Your task to perform on an android device: Go to notification settings Image 0: 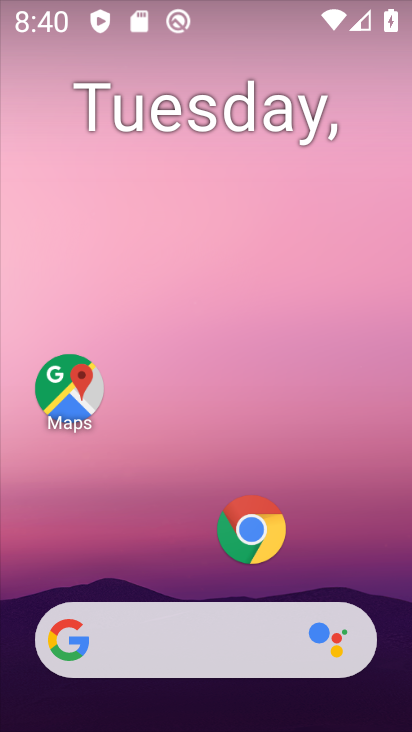
Step 0: drag from (197, 567) to (188, 60)
Your task to perform on an android device: Go to notification settings Image 1: 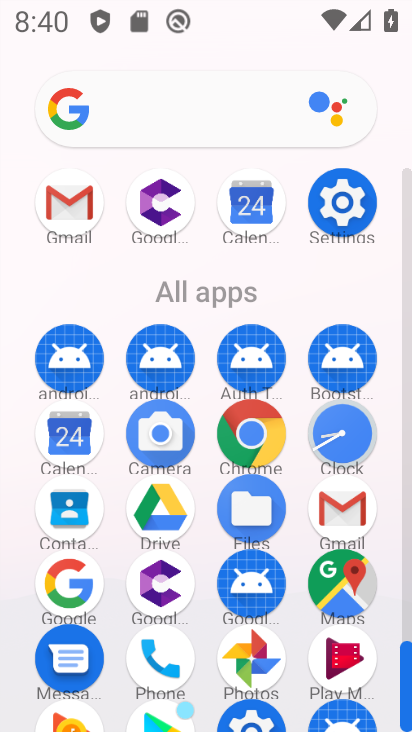
Step 1: click (335, 189)
Your task to perform on an android device: Go to notification settings Image 2: 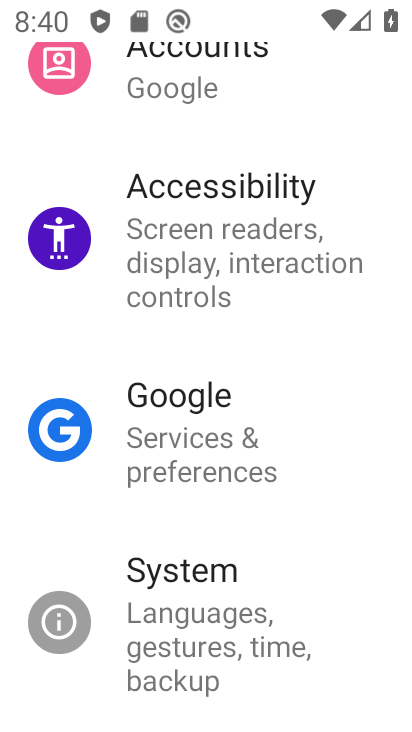
Step 2: drag from (200, 83) to (175, 729)
Your task to perform on an android device: Go to notification settings Image 3: 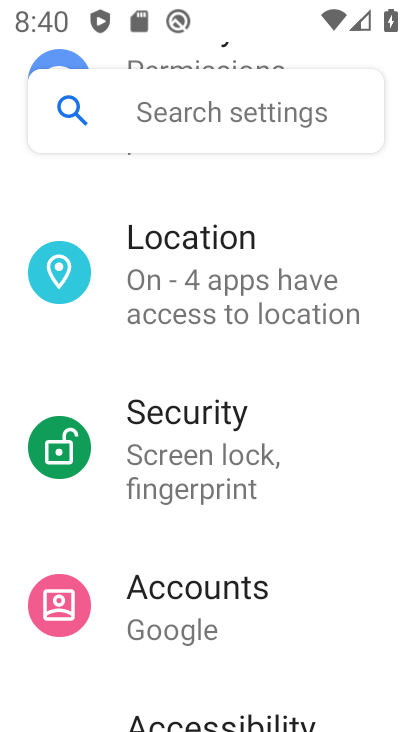
Step 3: drag from (181, 195) to (174, 722)
Your task to perform on an android device: Go to notification settings Image 4: 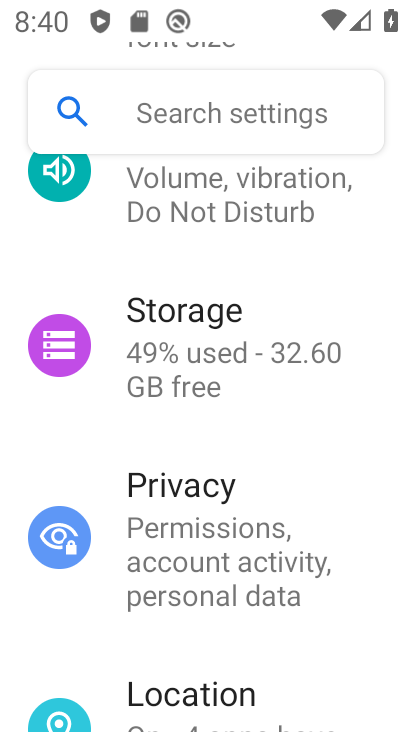
Step 4: drag from (190, 181) to (165, 731)
Your task to perform on an android device: Go to notification settings Image 5: 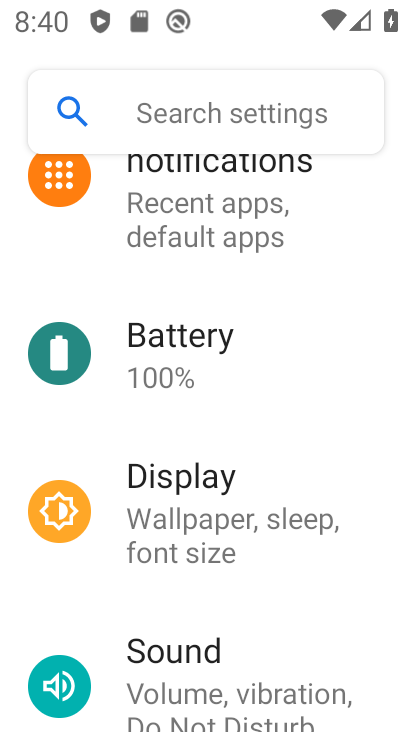
Step 5: click (176, 210)
Your task to perform on an android device: Go to notification settings Image 6: 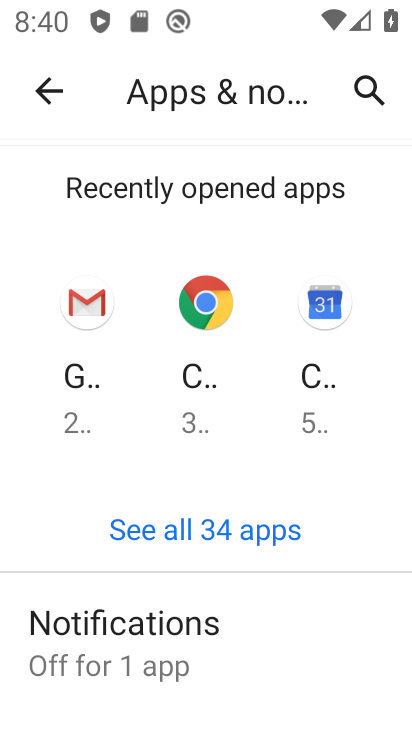
Step 6: click (202, 651)
Your task to perform on an android device: Go to notification settings Image 7: 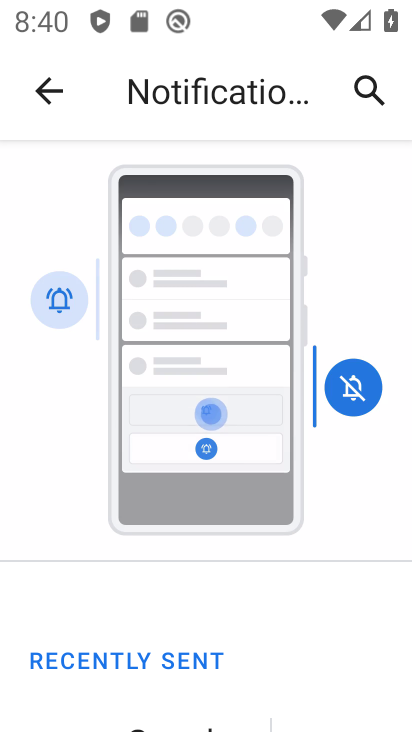
Step 7: drag from (263, 509) to (292, 229)
Your task to perform on an android device: Go to notification settings Image 8: 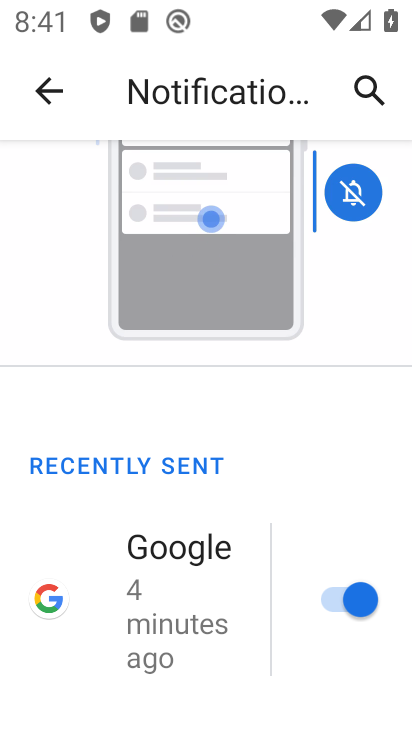
Step 8: drag from (250, 688) to (247, 165)
Your task to perform on an android device: Go to notification settings Image 9: 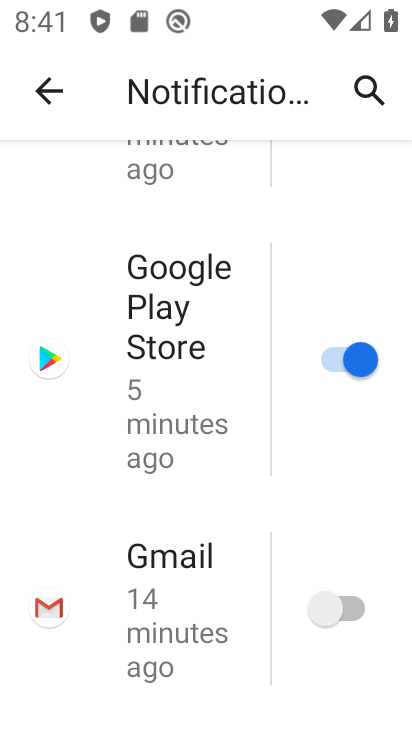
Step 9: drag from (245, 673) to (239, 138)
Your task to perform on an android device: Go to notification settings Image 10: 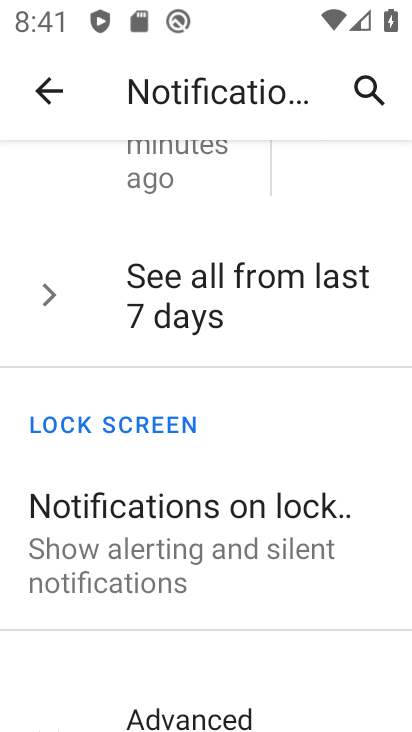
Step 10: drag from (185, 648) to (194, 190)
Your task to perform on an android device: Go to notification settings Image 11: 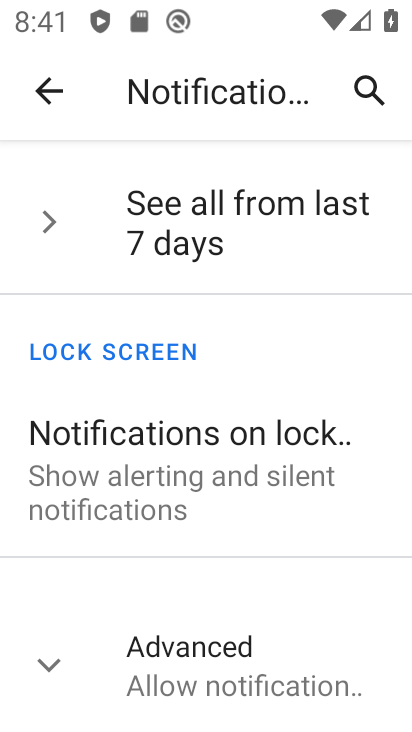
Step 11: click (51, 657)
Your task to perform on an android device: Go to notification settings Image 12: 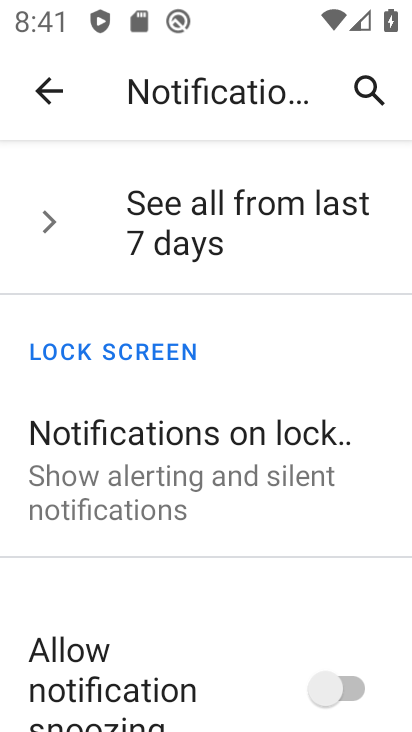
Step 12: task complete